Your task to perform on an android device: turn off airplane mode Image 0: 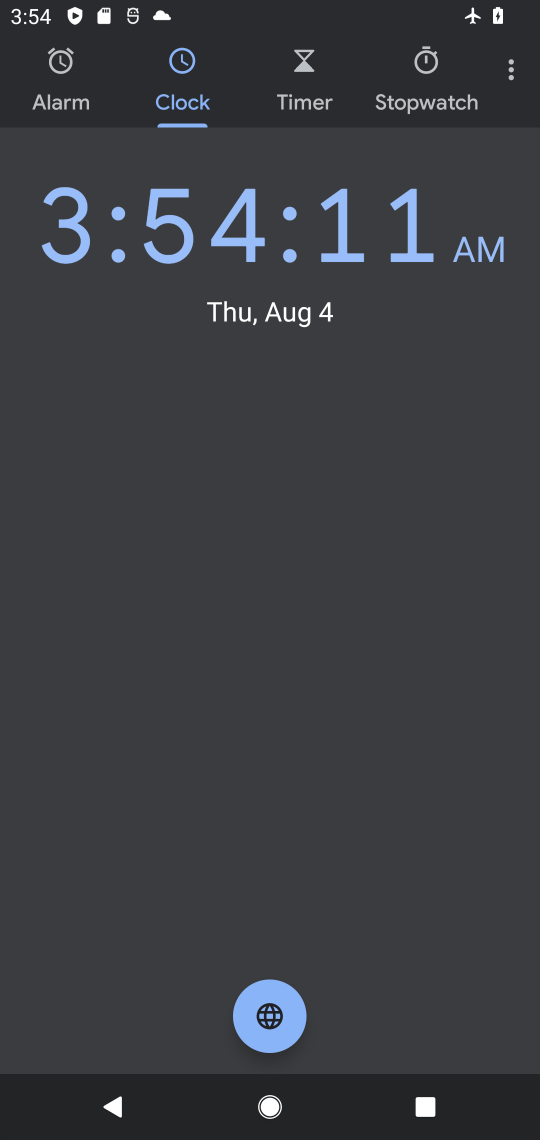
Step 0: press home button
Your task to perform on an android device: turn off airplane mode Image 1: 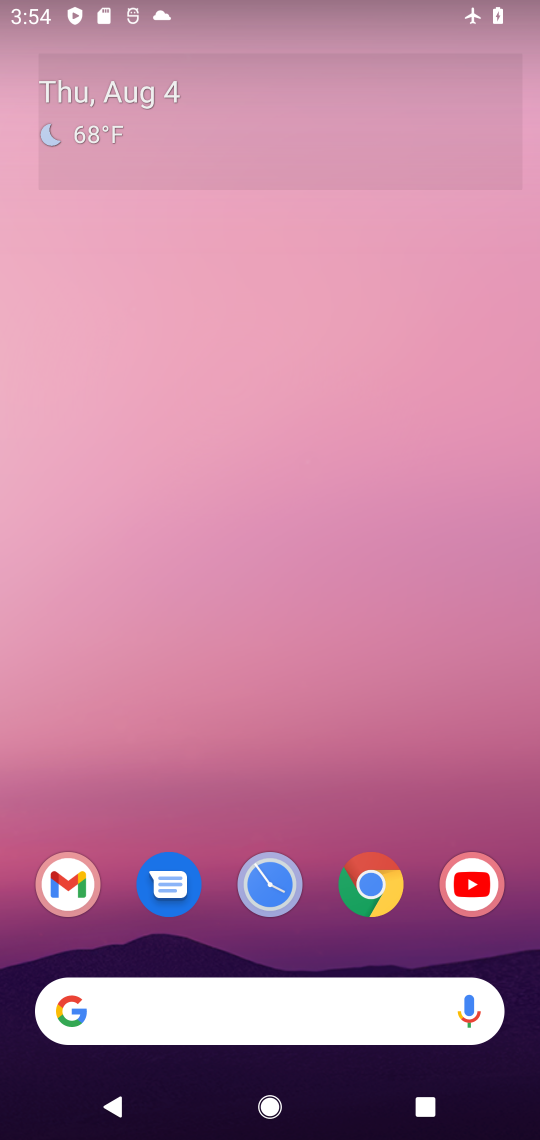
Step 1: drag from (330, 986) to (293, 292)
Your task to perform on an android device: turn off airplane mode Image 2: 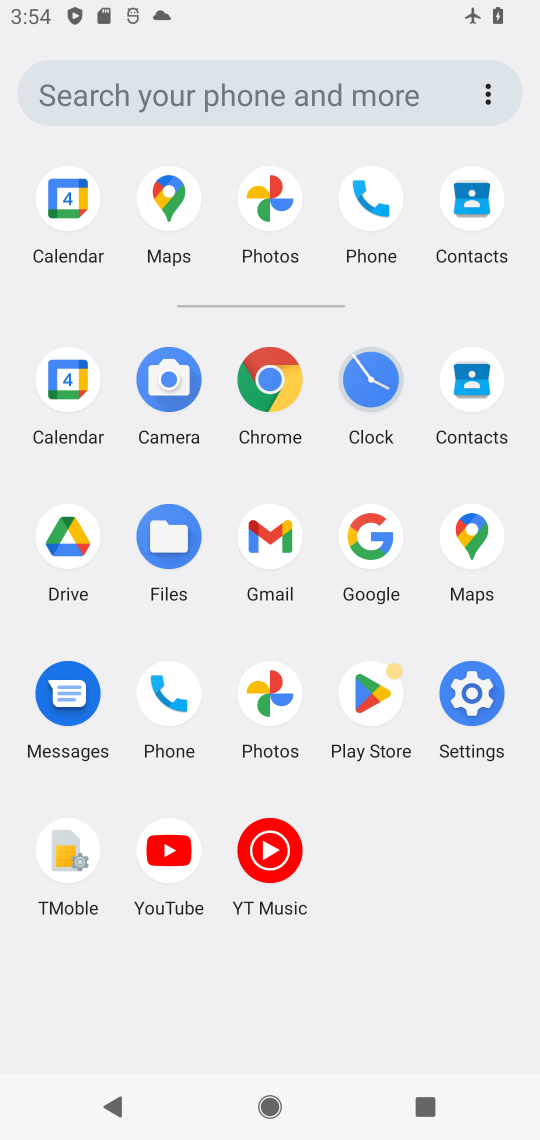
Step 2: click (478, 676)
Your task to perform on an android device: turn off airplane mode Image 3: 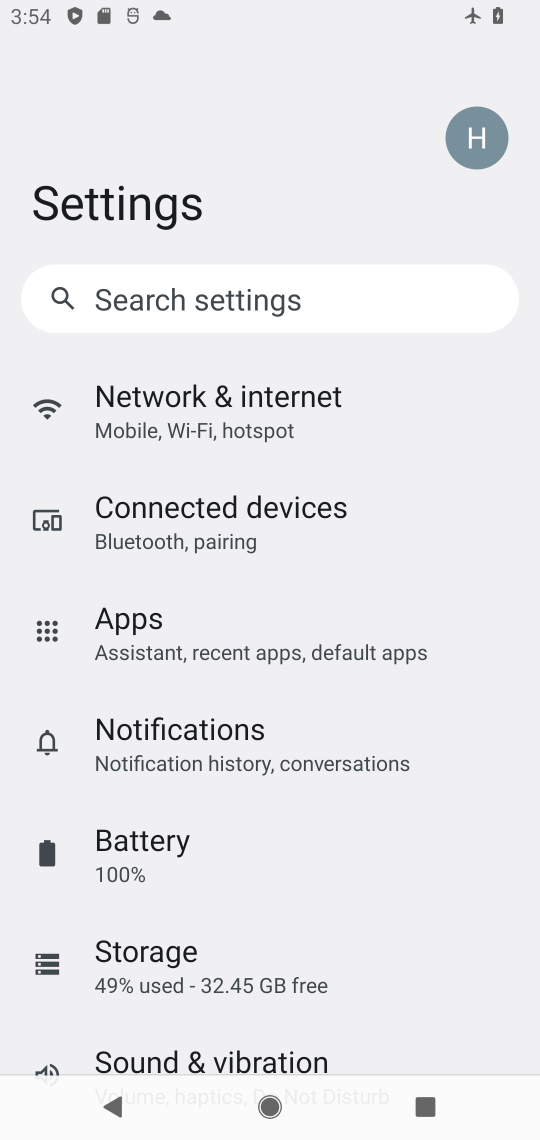
Step 3: click (244, 425)
Your task to perform on an android device: turn off airplane mode Image 4: 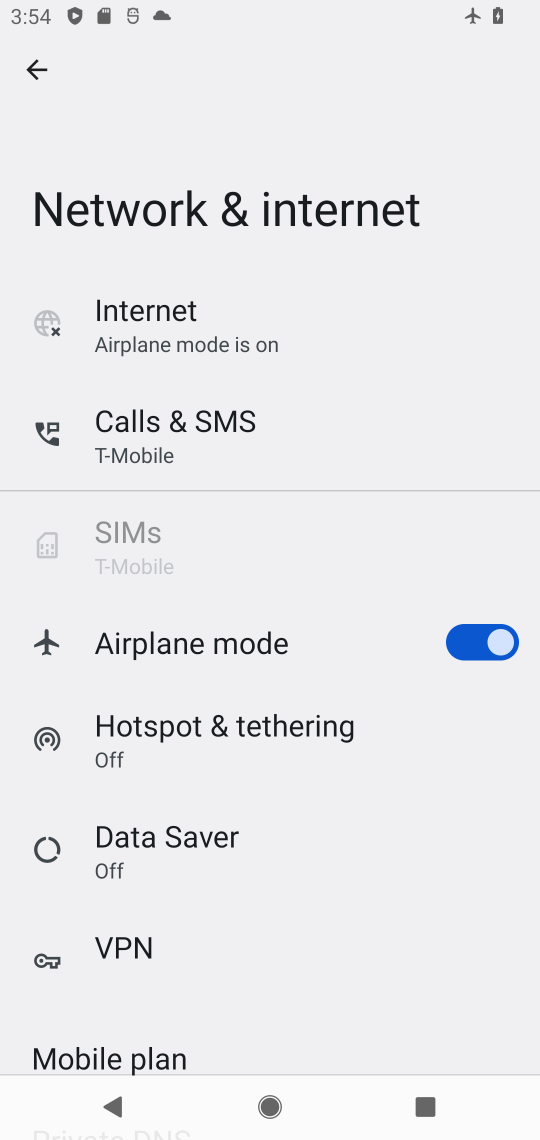
Step 4: click (471, 639)
Your task to perform on an android device: turn off airplane mode Image 5: 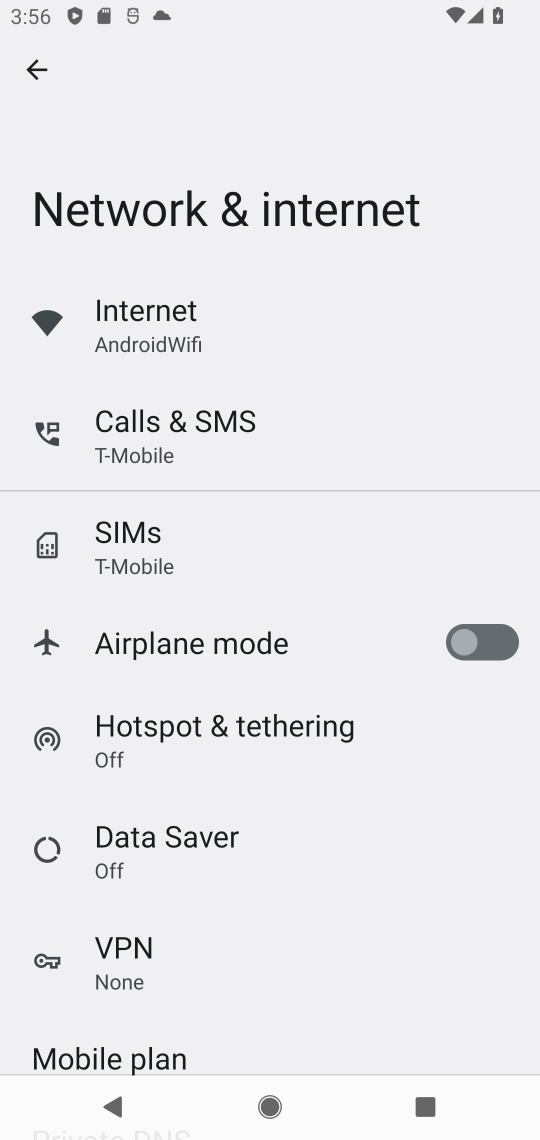
Step 5: task complete